Your task to perform on an android device: Play the last video I watched on Youtube Image 0: 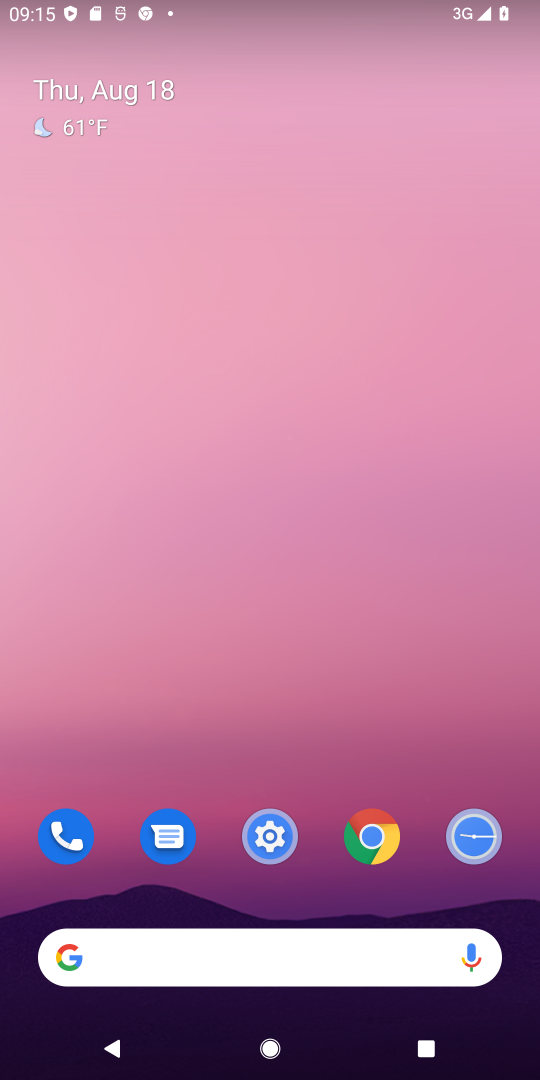
Step 0: drag from (400, 728) to (466, 71)
Your task to perform on an android device: Play the last video I watched on Youtube Image 1: 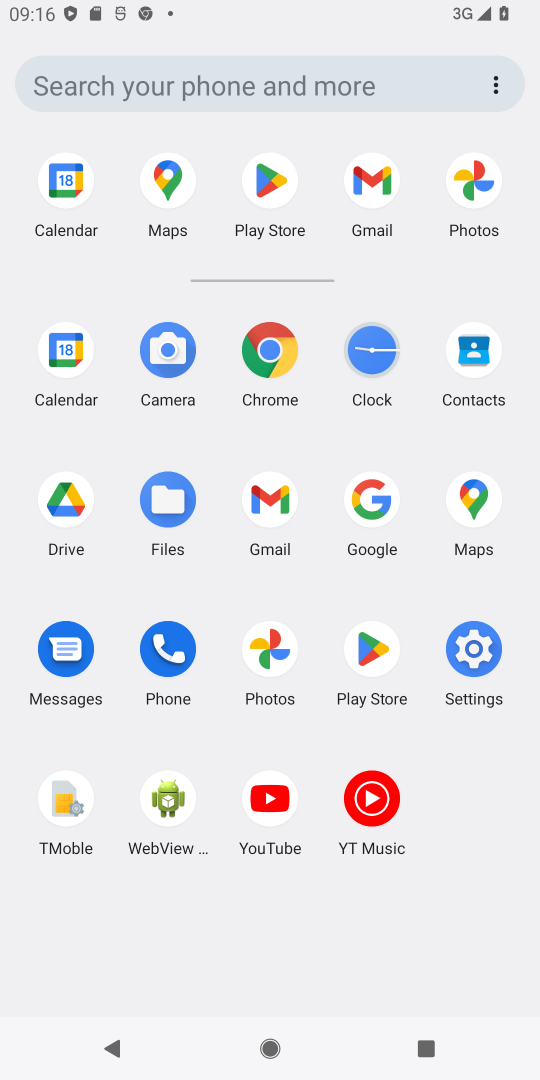
Step 1: click (258, 802)
Your task to perform on an android device: Play the last video I watched on Youtube Image 2: 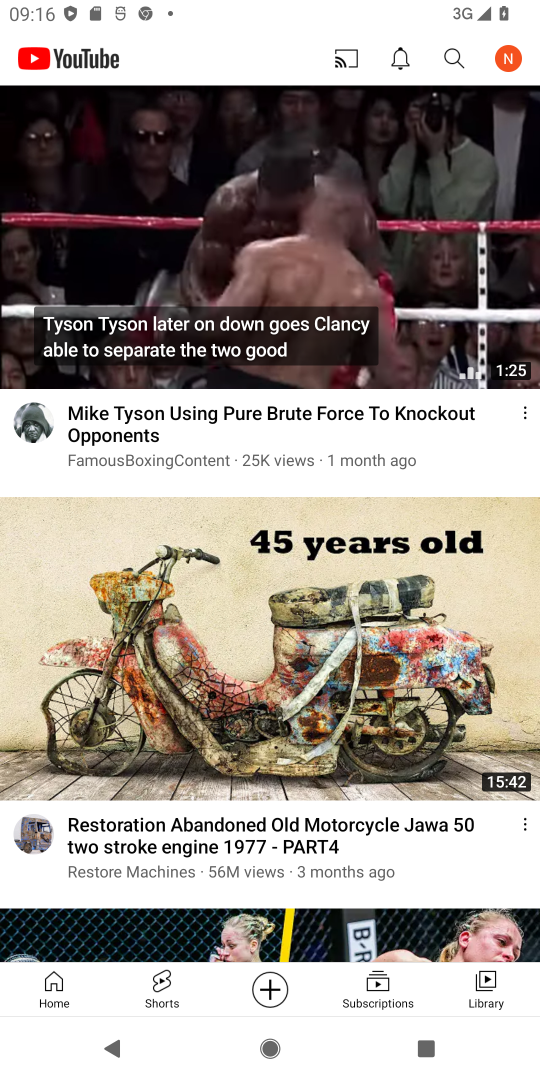
Step 2: click (476, 999)
Your task to perform on an android device: Play the last video I watched on Youtube Image 3: 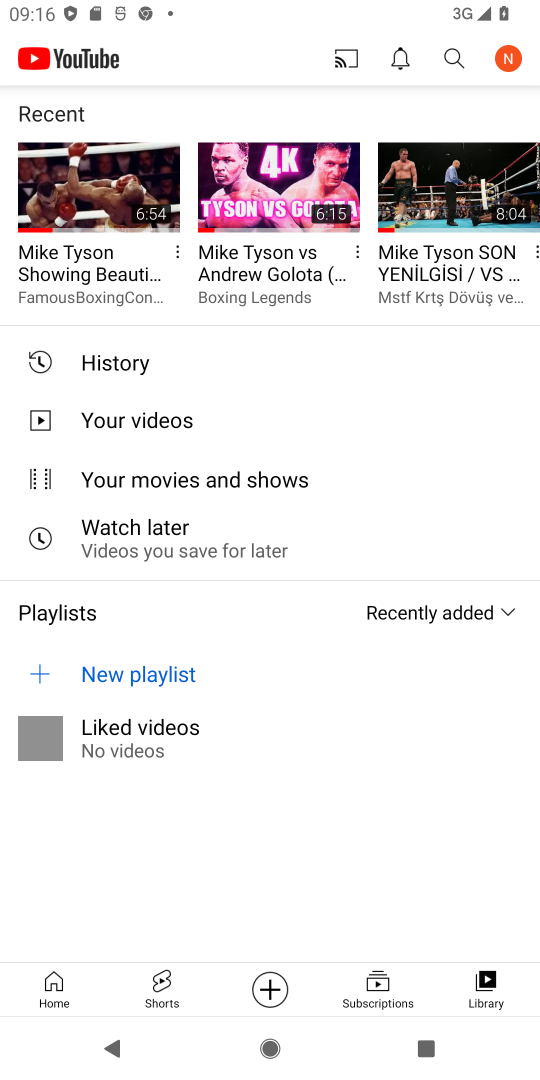
Step 3: click (120, 184)
Your task to perform on an android device: Play the last video I watched on Youtube Image 4: 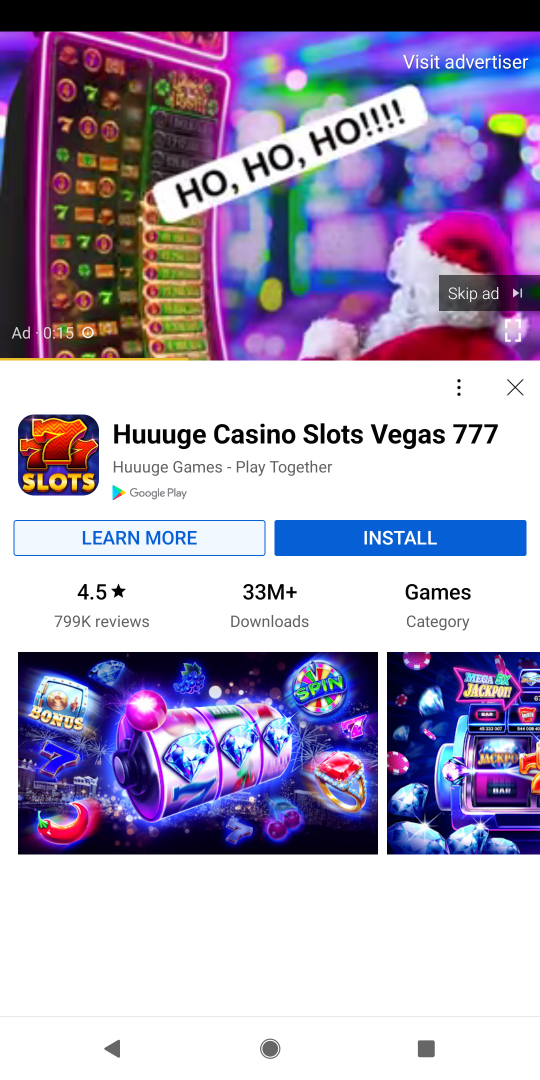
Step 4: click (491, 285)
Your task to perform on an android device: Play the last video I watched on Youtube Image 5: 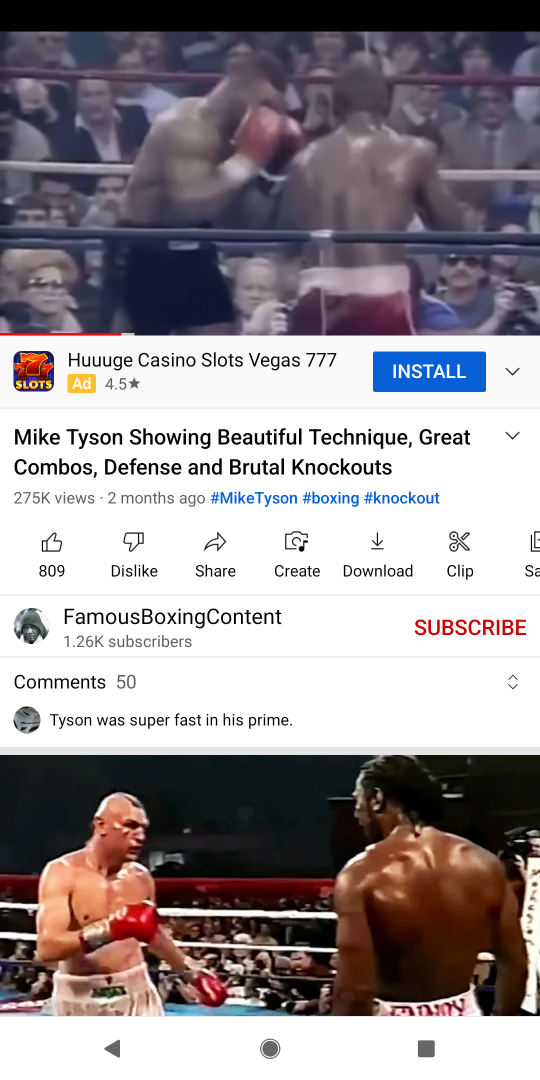
Step 5: task complete